Your task to perform on an android device: Open the map Image 0: 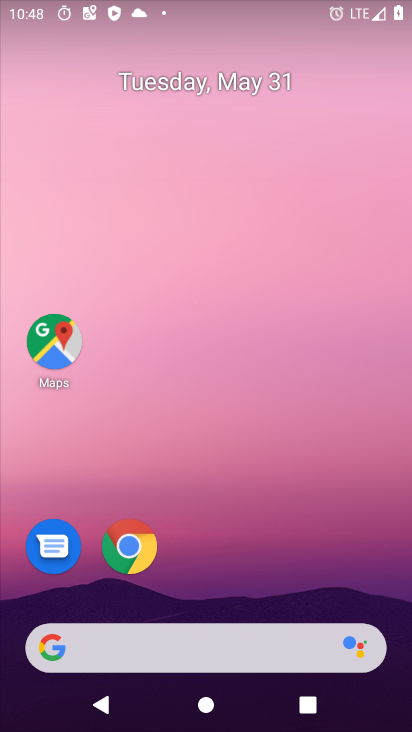
Step 0: click (60, 361)
Your task to perform on an android device: Open the map Image 1: 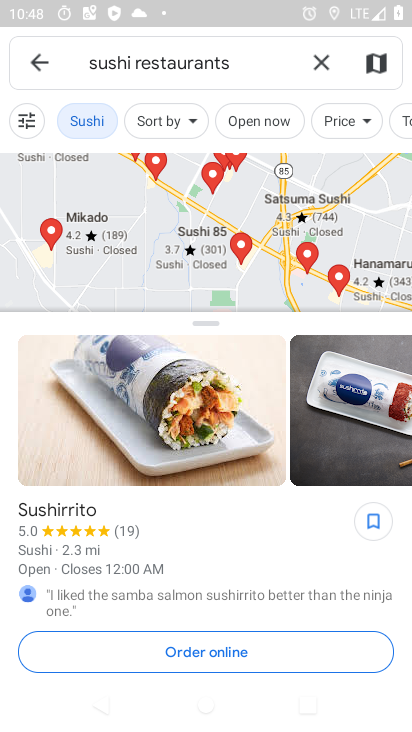
Step 1: task complete